Your task to perform on an android device: What's the weather going to be this weekend? Image 0: 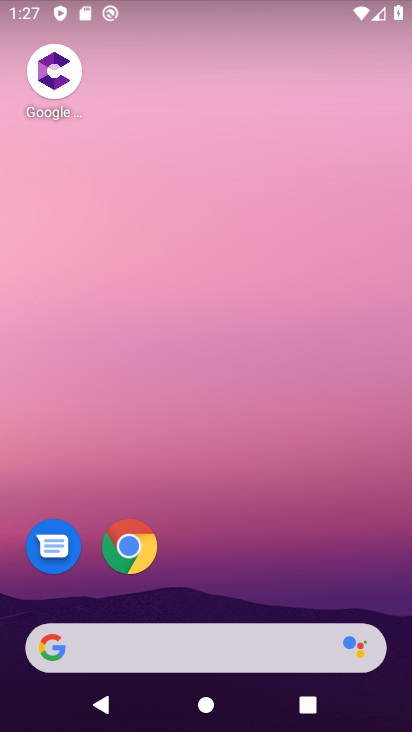
Step 0: drag from (226, 587) to (282, 80)
Your task to perform on an android device: What's the weather going to be this weekend? Image 1: 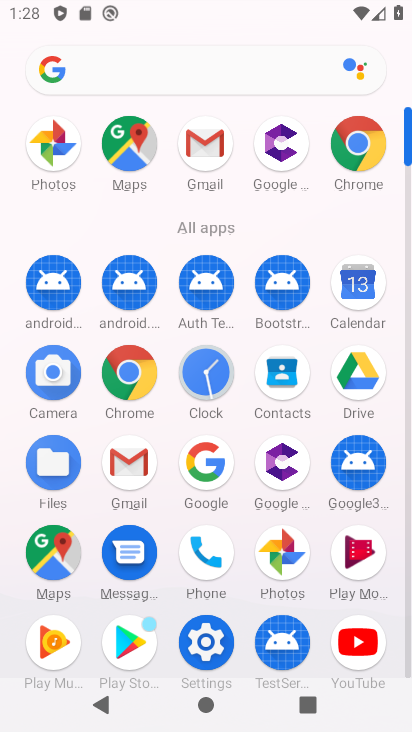
Step 1: drag from (196, 463) to (58, 169)
Your task to perform on an android device: What's the weather going to be this weekend? Image 2: 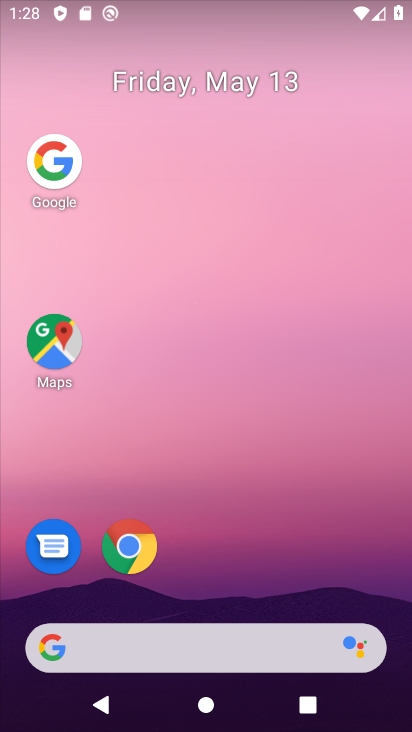
Step 2: click (71, 182)
Your task to perform on an android device: What's the weather going to be this weekend? Image 3: 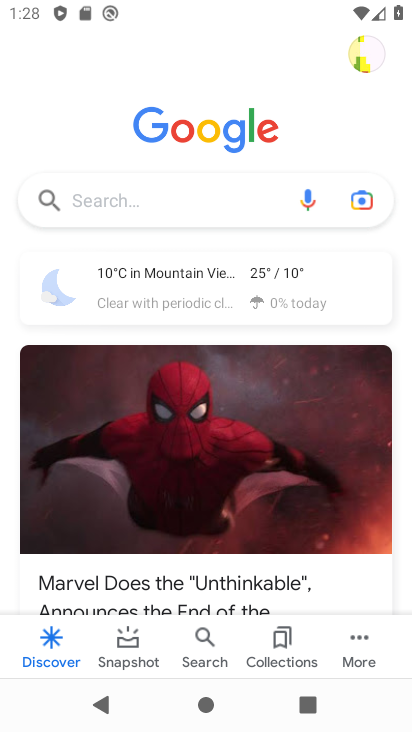
Step 3: click (208, 270)
Your task to perform on an android device: What's the weather going to be this weekend? Image 4: 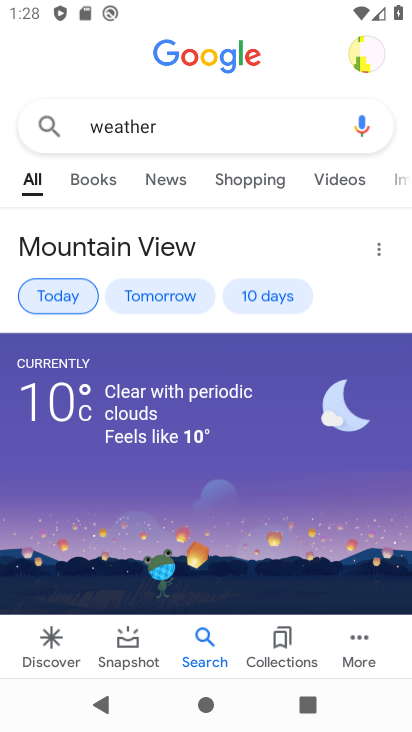
Step 4: click (274, 297)
Your task to perform on an android device: What's the weather going to be this weekend? Image 5: 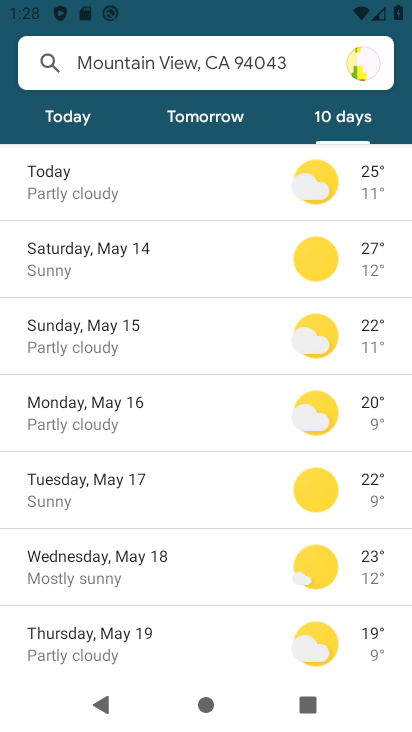
Step 5: click (141, 258)
Your task to perform on an android device: What's the weather going to be this weekend? Image 6: 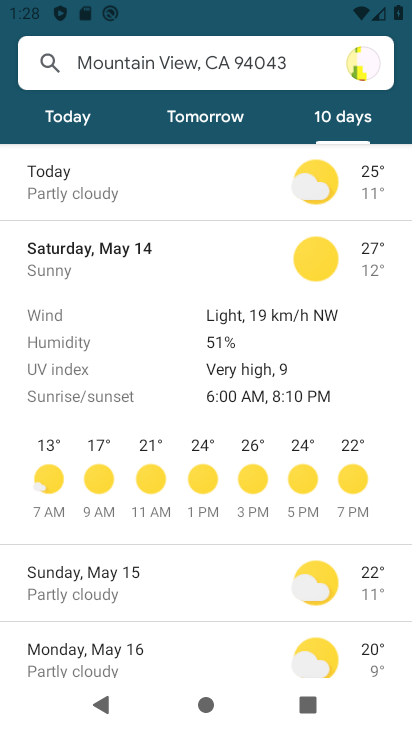
Step 6: task complete